Your task to perform on an android device: Go to Google Image 0: 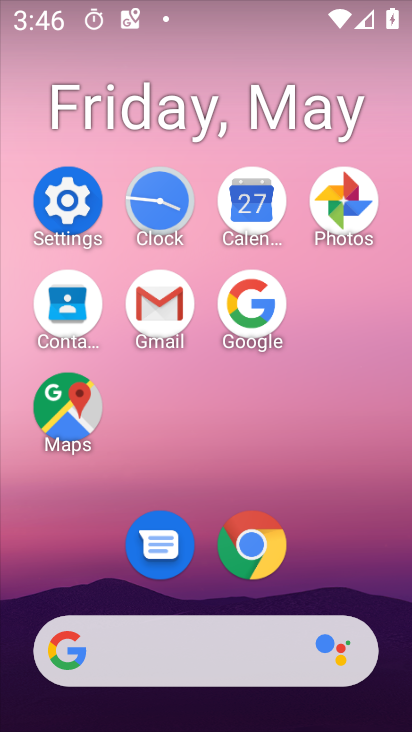
Step 0: click (267, 318)
Your task to perform on an android device: Go to Google Image 1: 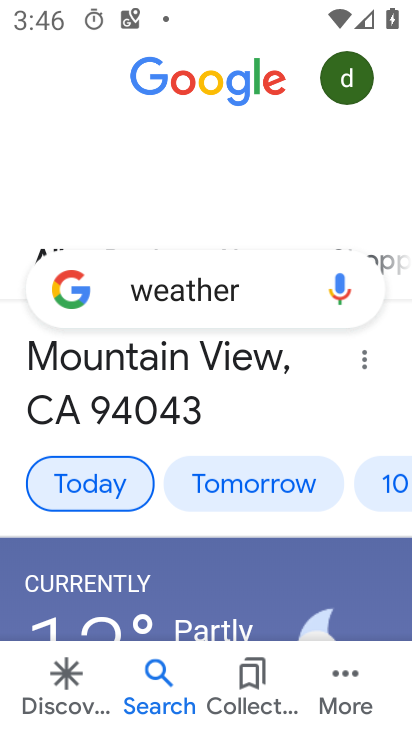
Step 1: task complete